Your task to perform on an android device: Open battery settings Image 0: 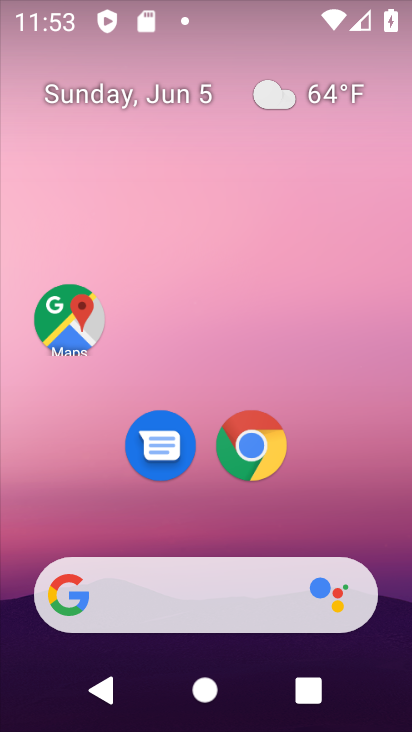
Step 0: drag from (343, 587) to (295, 54)
Your task to perform on an android device: Open battery settings Image 1: 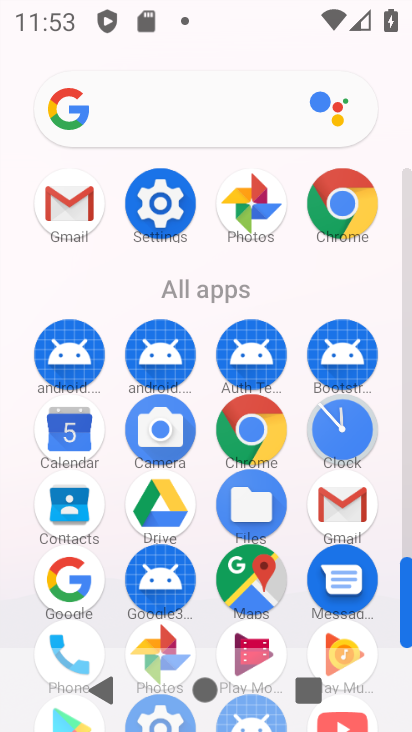
Step 1: click (164, 185)
Your task to perform on an android device: Open battery settings Image 2: 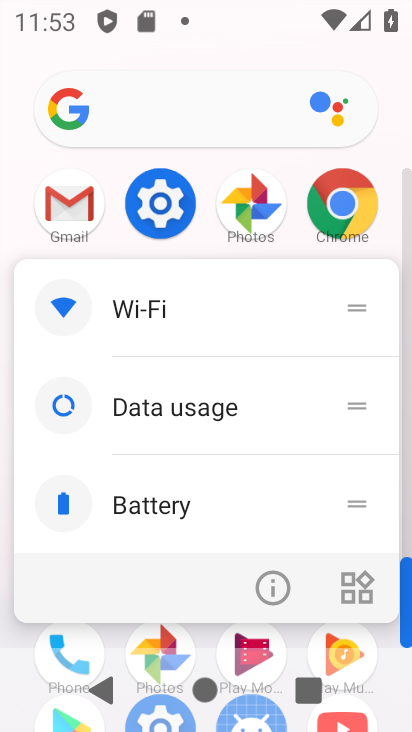
Step 2: click (155, 231)
Your task to perform on an android device: Open battery settings Image 3: 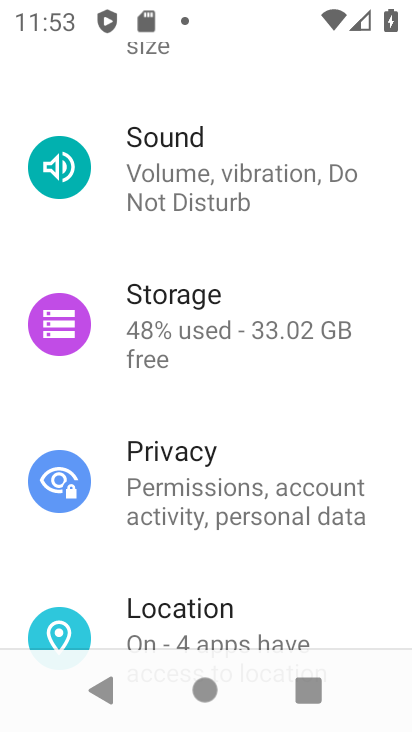
Step 3: drag from (220, 184) to (221, 659)
Your task to perform on an android device: Open battery settings Image 4: 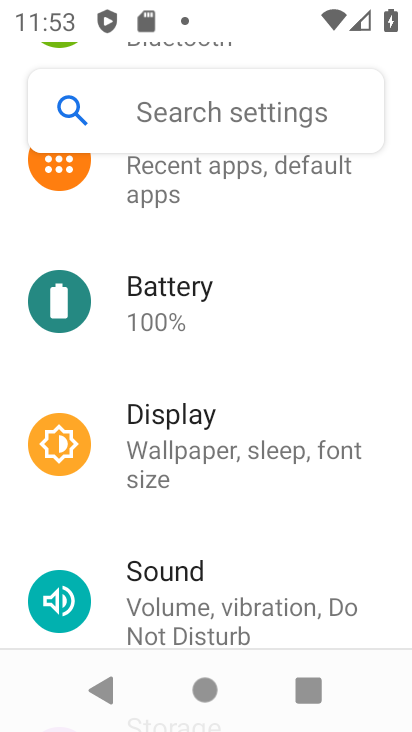
Step 4: click (242, 343)
Your task to perform on an android device: Open battery settings Image 5: 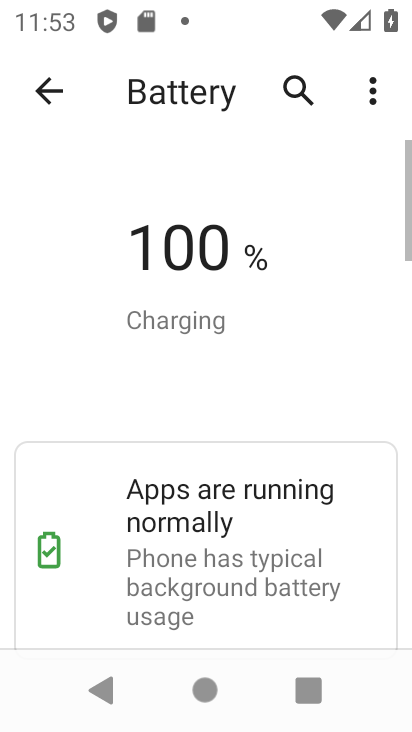
Step 5: task complete